Your task to perform on an android device: make emails show in primary in the gmail app Image 0: 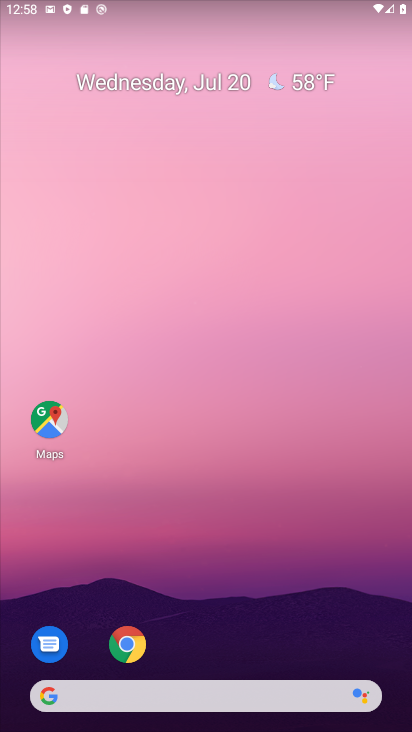
Step 0: drag from (217, 660) to (212, 102)
Your task to perform on an android device: make emails show in primary in the gmail app Image 1: 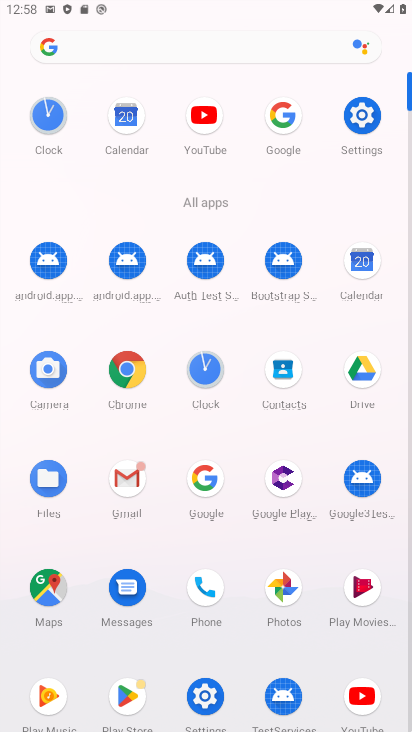
Step 1: click (130, 478)
Your task to perform on an android device: make emails show in primary in the gmail app Image 2: 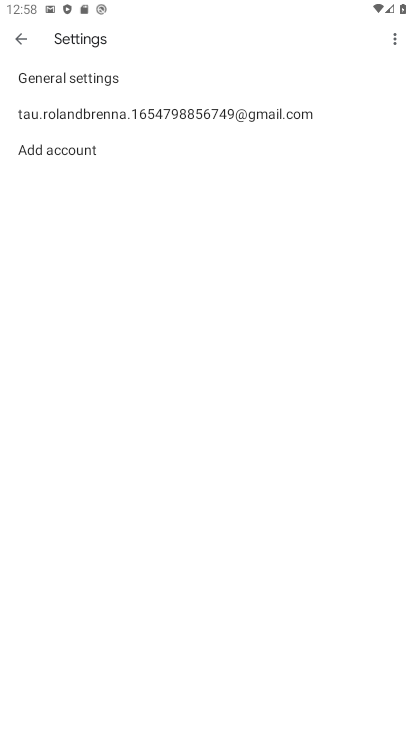
Step 2: click (156, 115)
Your task to perform on an android device: make emails show in primary in the gmail app Image 3: 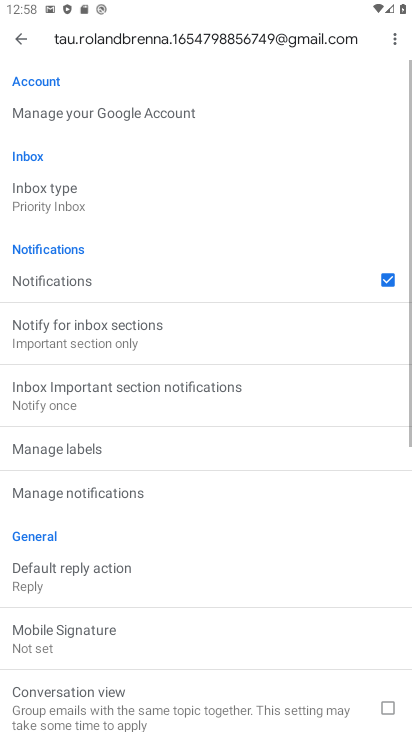
Step 3: click (55, 204)
Your task to perform on an android device: make emails show in primary in the gmail app Image 4: 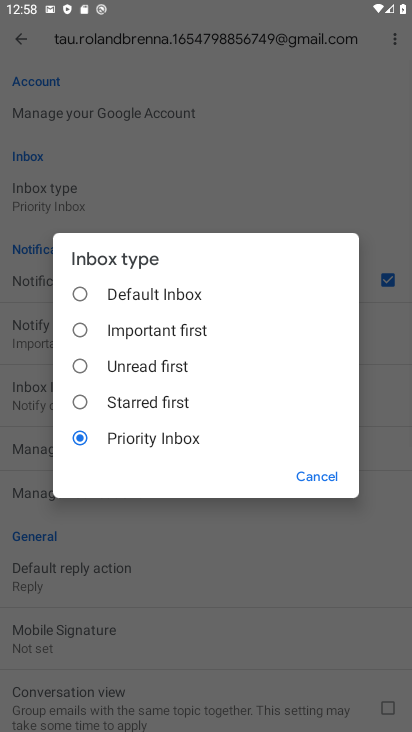
Step 4: click (81, 296)
Your task to perform on an android device: make emails show in primary in the gmail app Image 5: 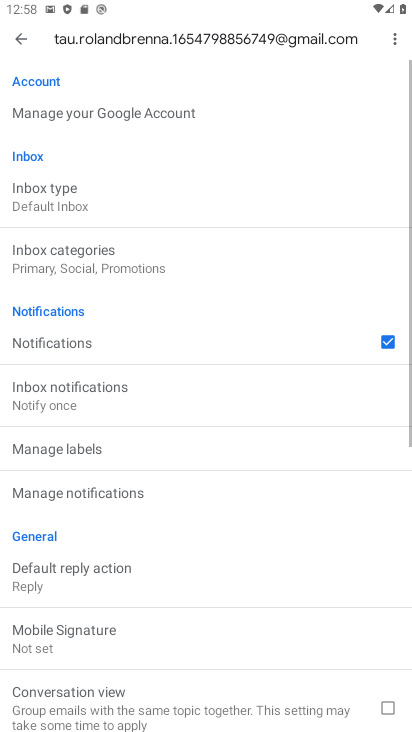
Step 5: click (64, 273)
Your task to perform on an android device: make emails show in primary in the gmail app Image 6: 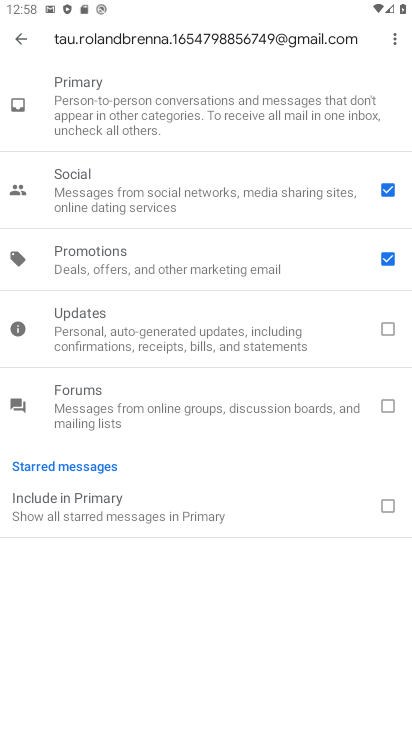
Step 6: click (391, 196)
Your task to perform on an android device: make emails show in primary in the gmail app Image 7: 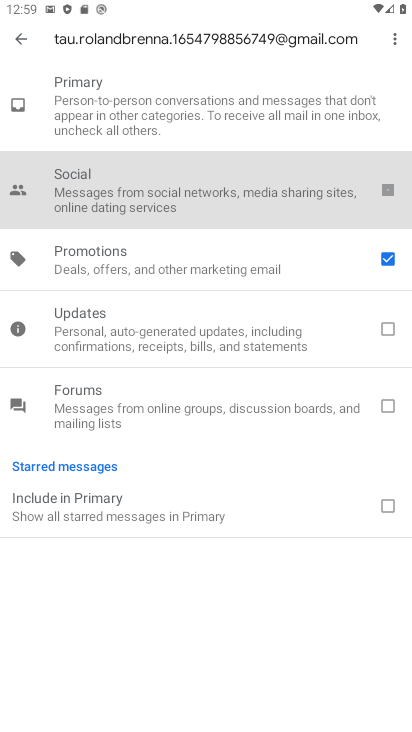
Step 7: click (395, 255)
Your task to perform on an android device: make emails show in primary in the gmail app Image 8: 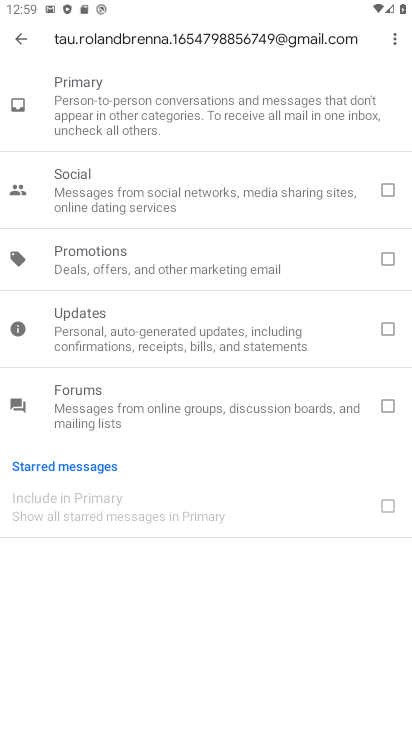
Step 8: task complete